Your task to perform on an android device: Open the map Image 0: 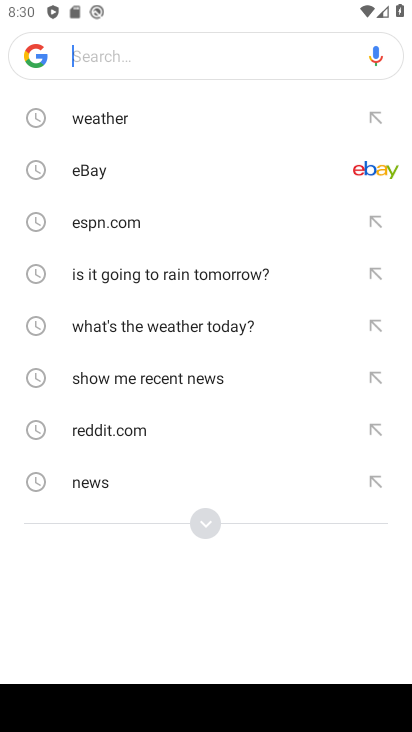
Step 0: press home button
Your task to perform on an android device: Open the map Image 1: 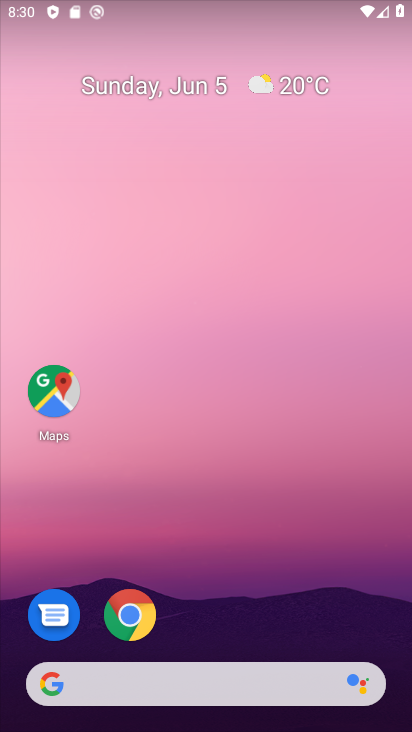
Step 1: click (64, 387)
Your task to perform on an android device: Open the map Image 2: 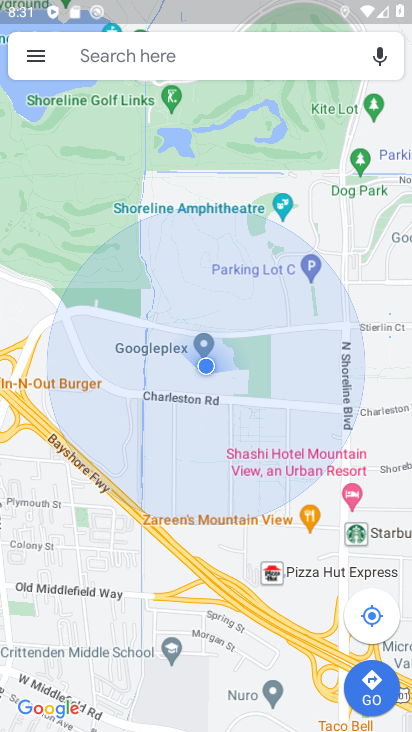
Step 2: task complete